Your task to perform on an android device: Go to Reddit.com Image 0: 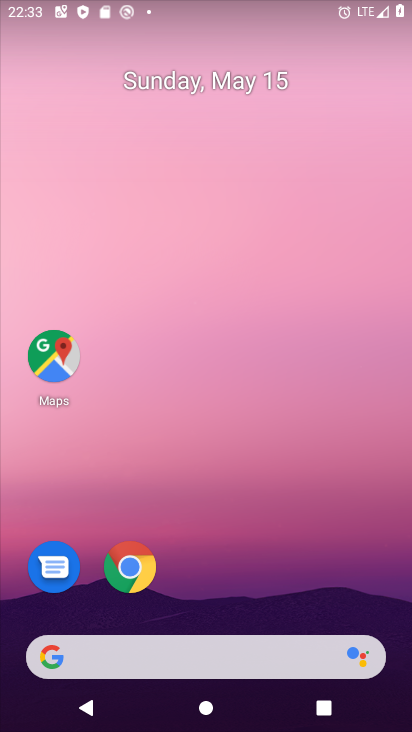
Step 0: click (121, 652)
Your task to perform on an android device: Go to Reddit.com Image 1: 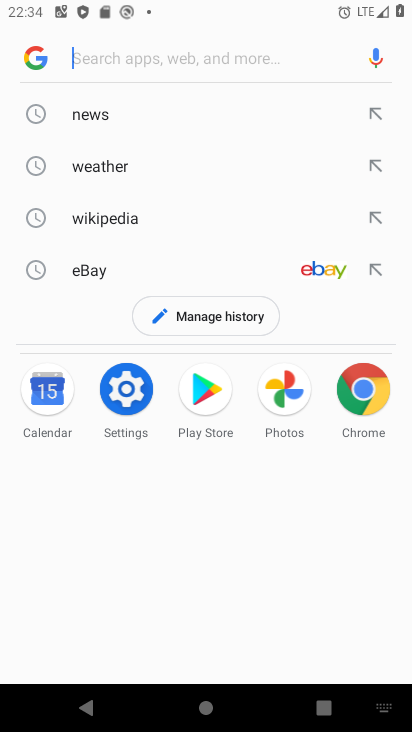
Step 1: type "reddit.com"
Your task to perform on an android device: Go to Reddit.com Image 2: 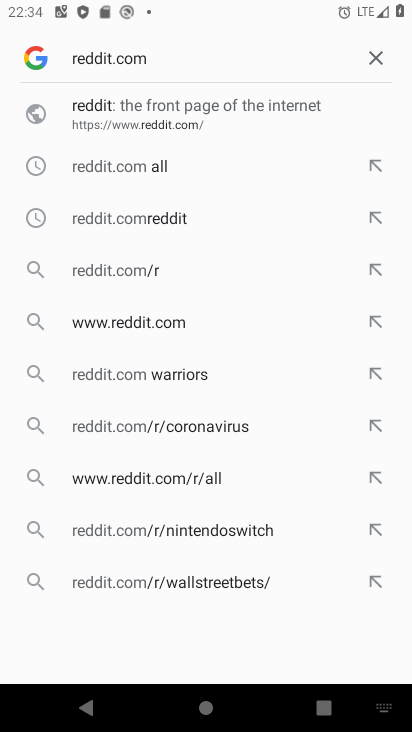
Step 2: click (210, 101)
Your task to perform on an android device: Go to Reddit.com Image 3: 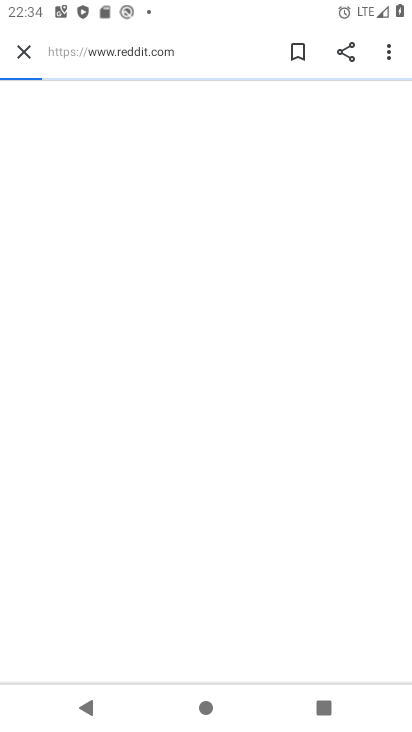
Step 3: task complete